Your task to perform on an android device: Show me popular games on the Play Store Image 0: 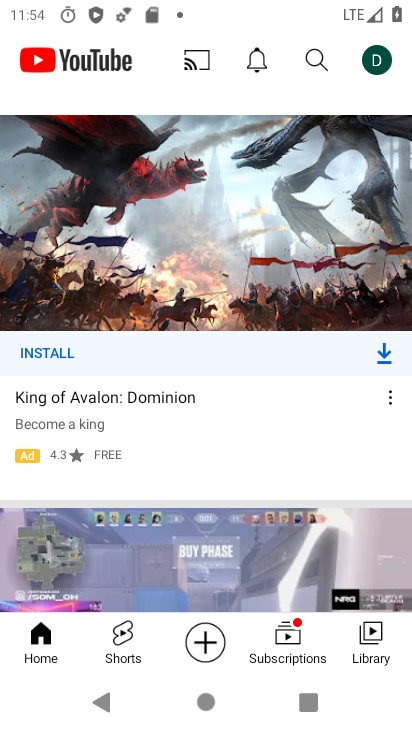
Step 0: press home button
Your task to perform on an android device: Show me popular games on the Play Store Image 1: 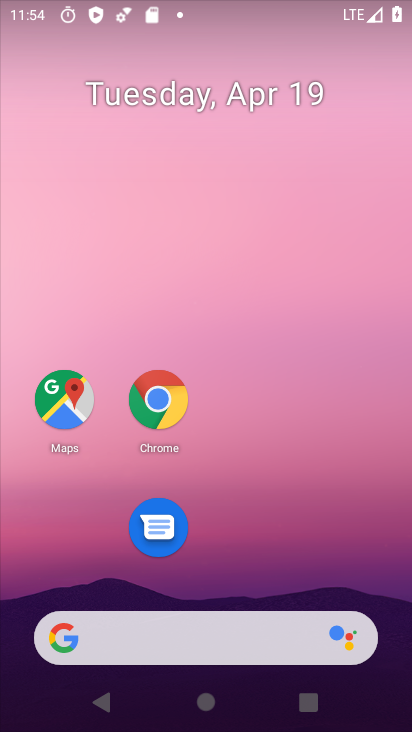
Step 1: drag from (299, 670) to (195, 154)
Your task to perform on an android device: Show me popular games on the Play Store Image 2: 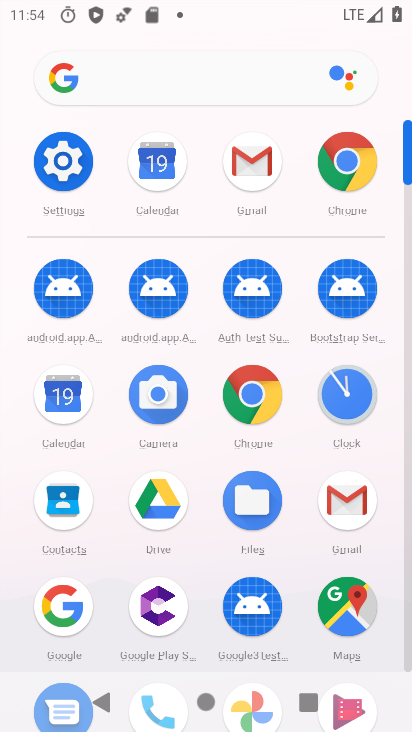
Step 2: drag from (108, 569) to (163, 377)
Your task to perform on an android device: Show me popular games on the Play Store Image 3: 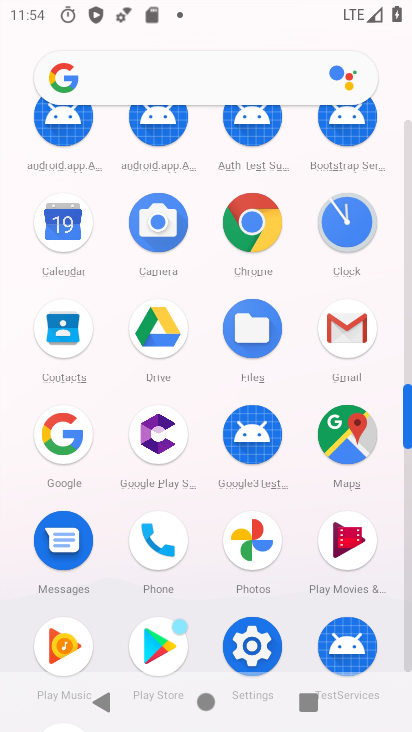
Step 3: click (166, 632)
Your task to perform on an android device: Show me popular games on the Play Store Image 4: 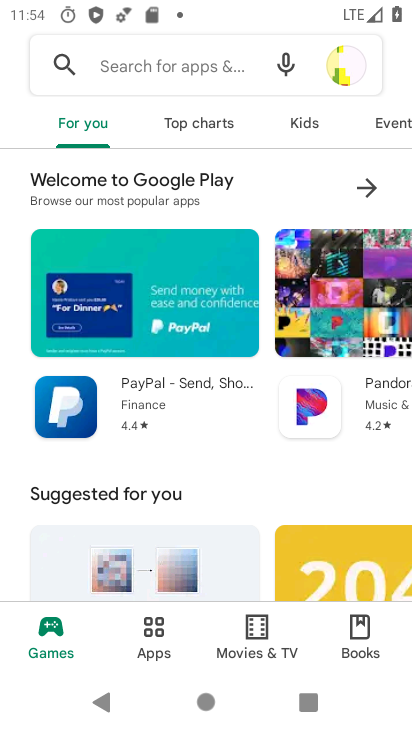
Step 4: click (185, 55)
Your task to perform on an android device: Show me popular games on the Play Store Image 5: 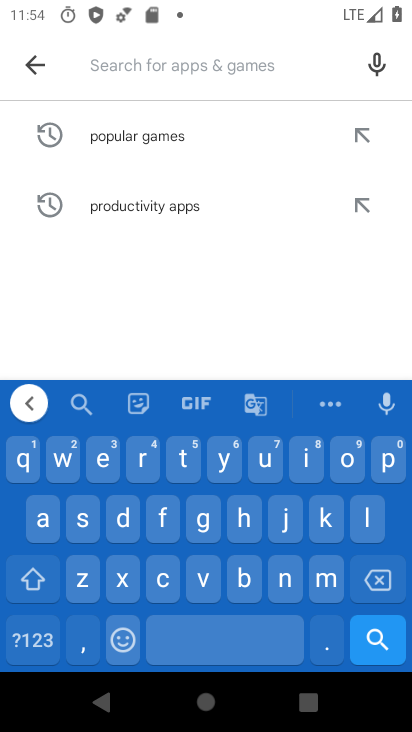
Step 5: click (139, 130)
Your task to perform on an android device: Show me popular games on the Play Store Image 6: 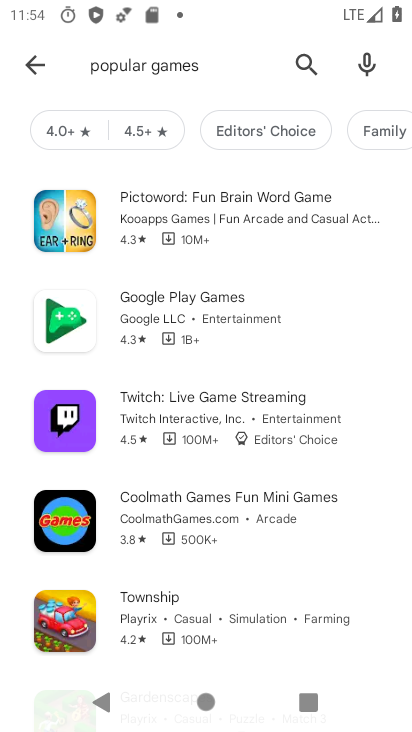
Step 6: task complete